Your task to perform on an android device: Show me the alarms in the clock app Image 0: 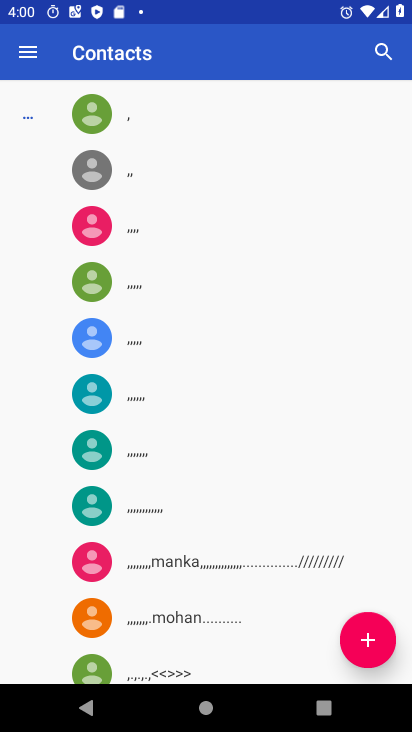
Step 0: drag from (193, 629) to (244, 423)
Your task to perform on an android device: Show me the alarms in the clock app Image 1: 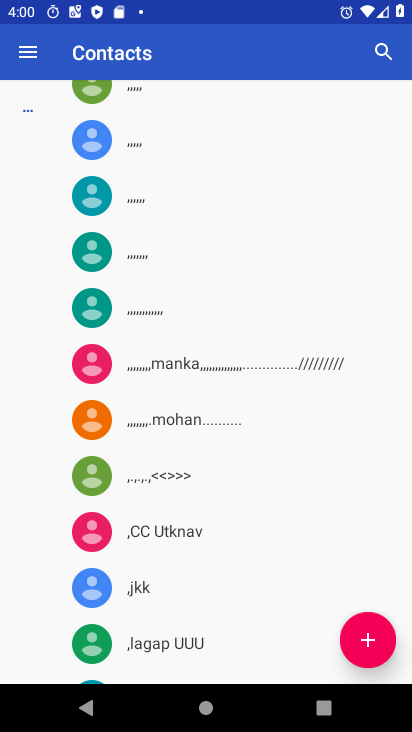
Step 1: press home button
Your task to perform on an android device: Show me the alarms in the clock app Image 2: 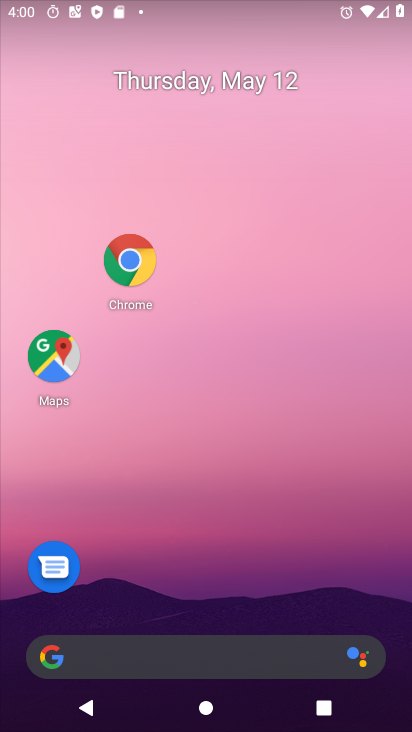
Step 2: drag from (189, 629) to (222, 303)
Your task to perform on an android device: Show me the alarms in the clock app Image 3: 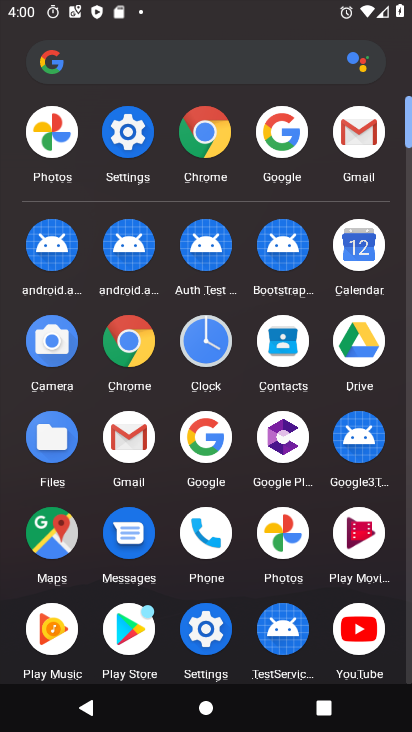
Step 3: click (214, 340)
Your task to perform on an android device: Show me the alarms in the clock app Image 4: 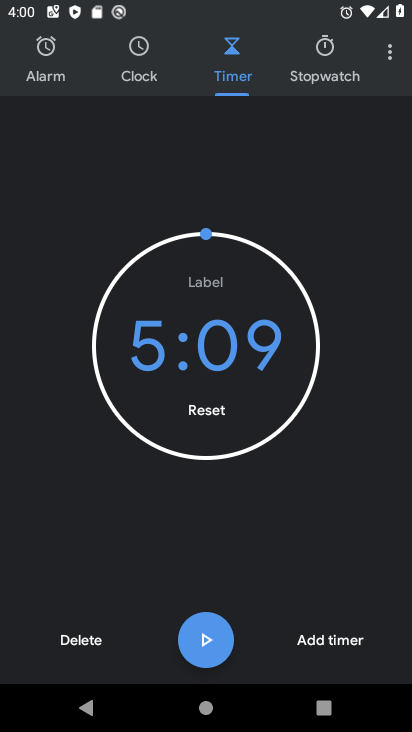
Step 4: click (42, 57)
Your task to perform on an android device: Show me the alarms in the clock app Image 5: 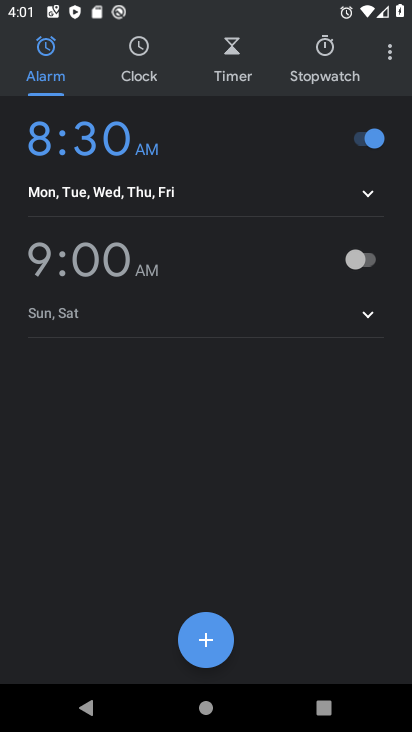
Step 5: task complete